Your task to perform on an android device: open a bookmark in the chrome app Image 0: 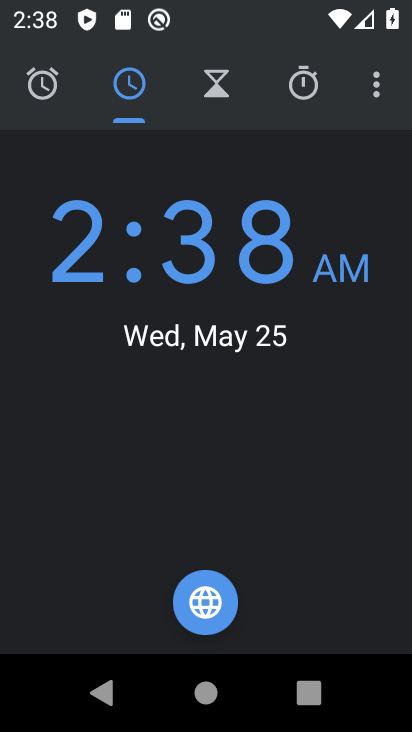
Step 0: press home button
Your task to perform on an android device: open a bookmark in the chrome app Image 1: 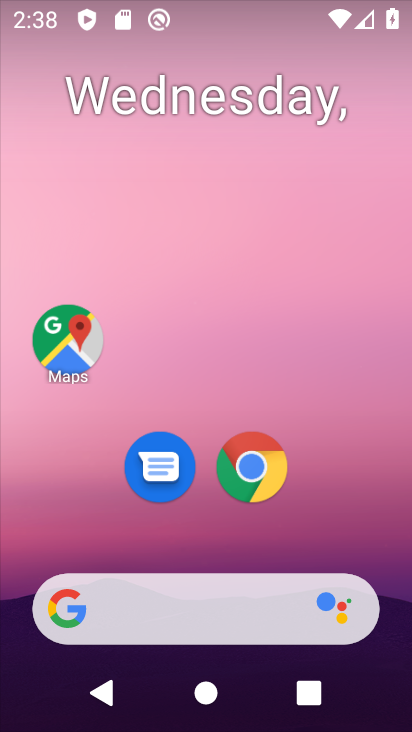
Step 1: click (261, 456)
Your task to perform on an android device: open a bookmark in the chrome app Image 2: 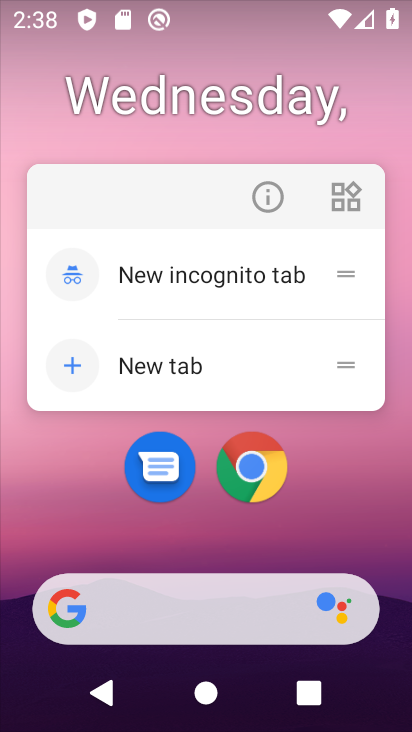
Step 2: click (260, 468)
Your task to perform on an android device: open a bookmark in the chrome app Image 3: 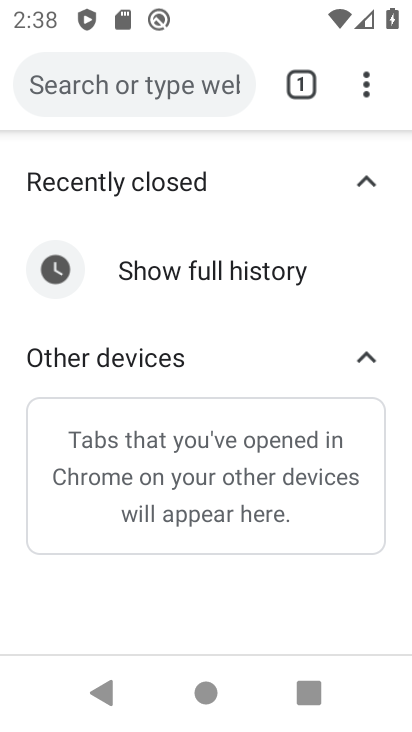
Step 3: task complete